Your task to perform on an android device: Show me productivity apps on the Play Store Image 0: 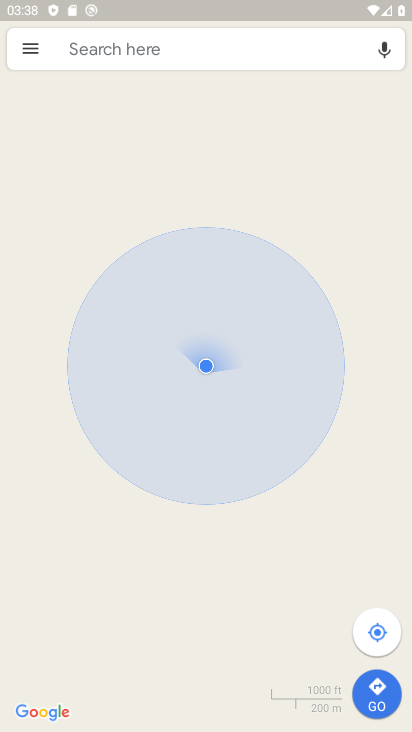
Step 0: press home button
Your task to perform on an android device: Show me productivity apps on the Play Store Image 1: 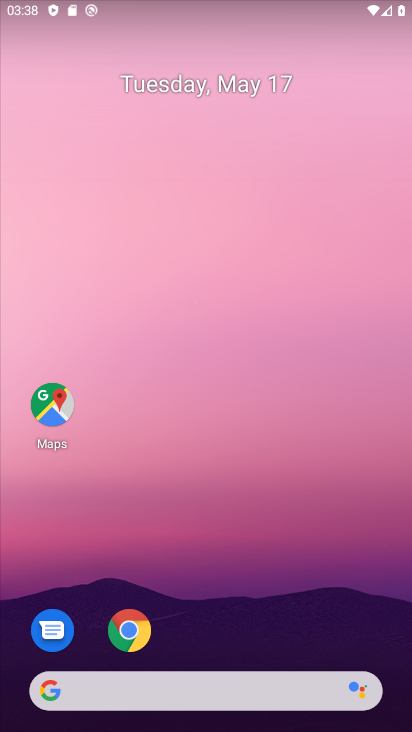
Step 1: drag from (188, 629) to (298, 31)
Your task to perform on an android device: Show me productivity apps on the Play Store Image 2: 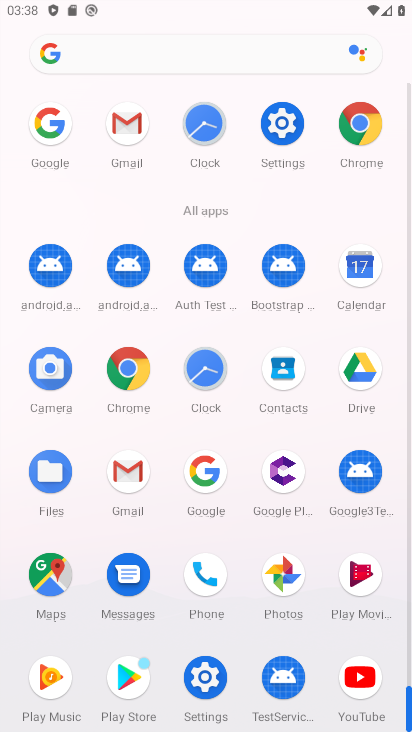
Step 2: drag from (160, 603) to (219, 313)
Your task to perform on an android device: Show me productivity apps on the Play Store Image 3: 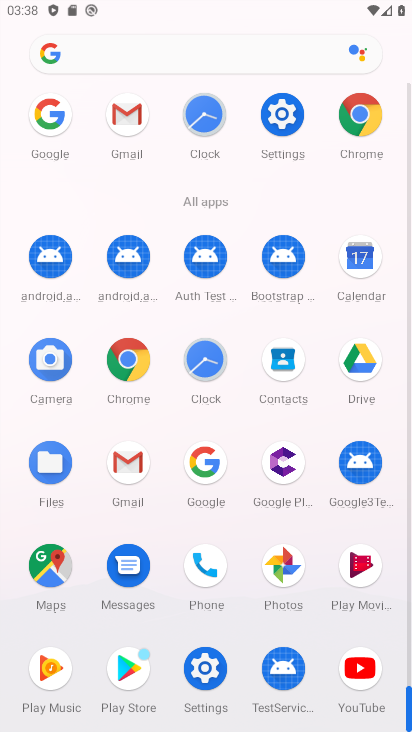
Step 3: click (141, 669)
Your task to perform on an android device: Show me productivity apps on the Play Store Image 4: 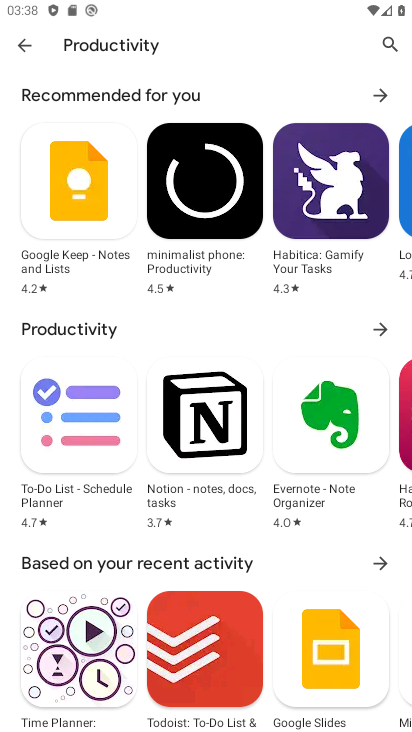
Step 4: task complete